Your task to perform on an android device: What's the weather today? Image 0: 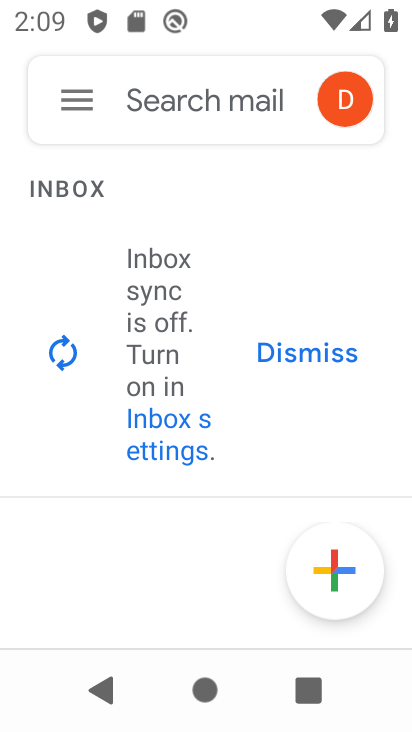
Step 0: press home button
Your task to perform on an android device: What's the weather today? Image 1: 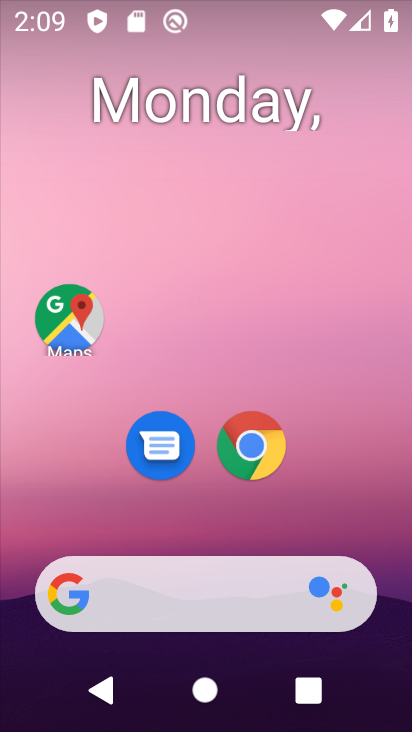
Step 1: click (144, 604)
Your task to perform on an android device: What's the weather today? Image 2: 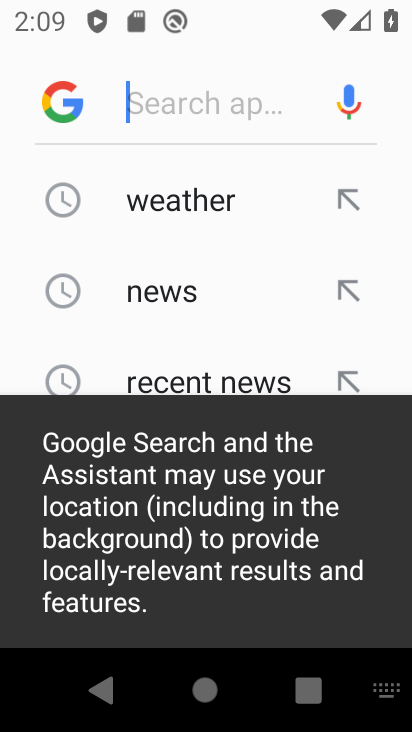
Step 2: click (160, 215)
Your task to perform on an android device: What's the weather today? Image 3: 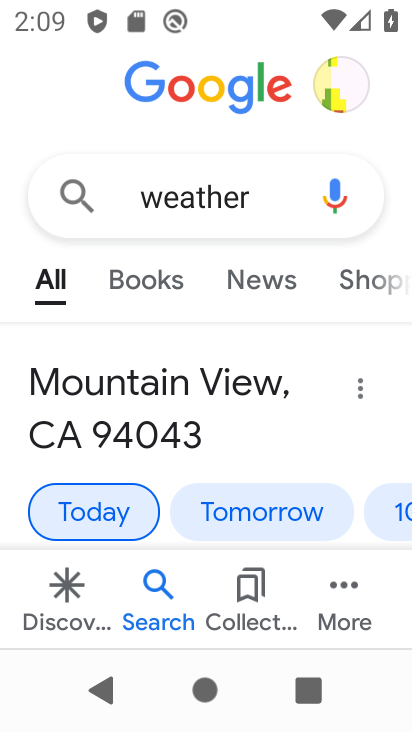
Step 3: task complete